Your task to perform on an android device: open a bookmark in the chrome app Image 0: 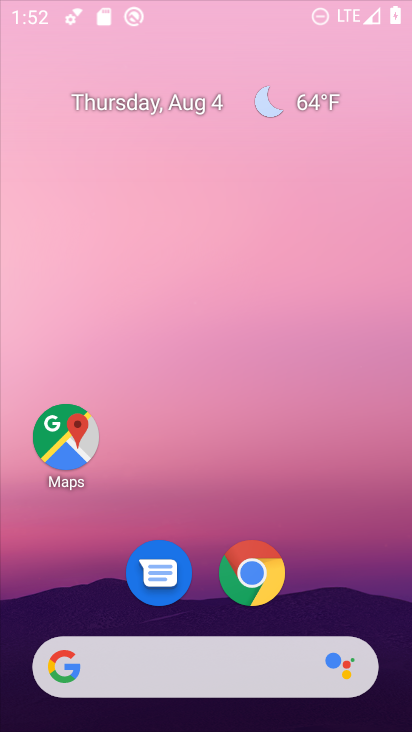
Step 0: drag from (350, 519) to (243, 94)
Your task to perform on an android device: open a bookmark in the chrome app Image 1: 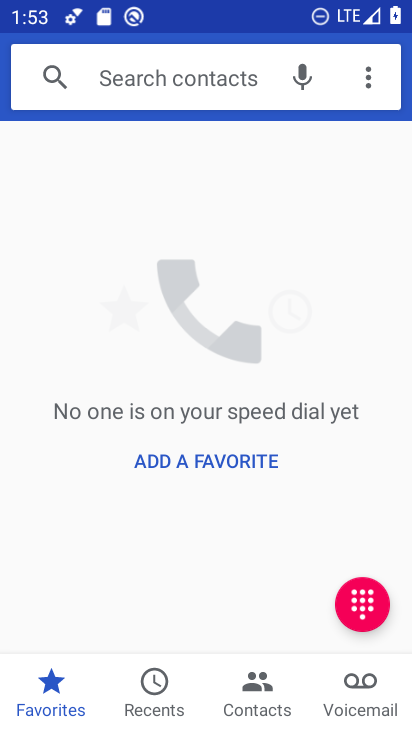
Step 1: press home button
Your task to perform on an android device: open a bookmark in the chrome app Image 2: 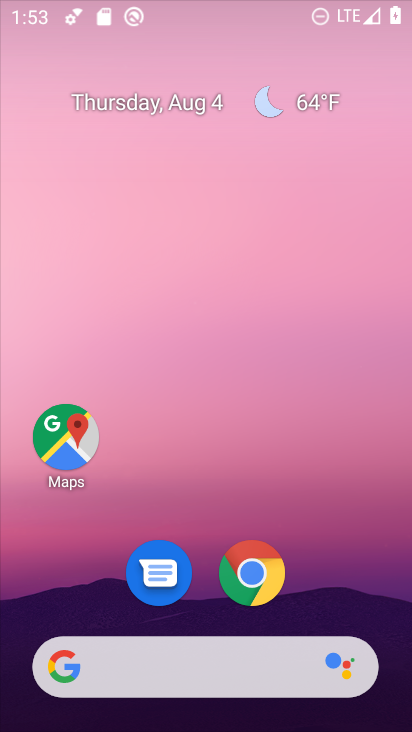
Step 2: drag from (323, 587) to (364, 68)
Your task to perform on an android device: open a bookmark in the chrome app Image 3: 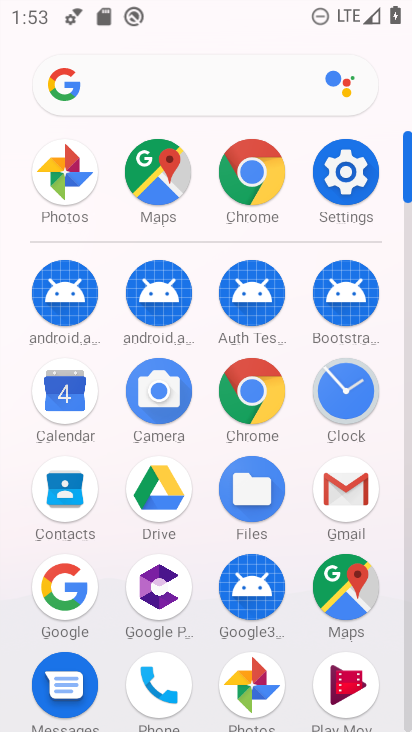
Step 3: click (250, 388)
Your task to perform on an android device: open a bookmark in the chrome app Image 4: 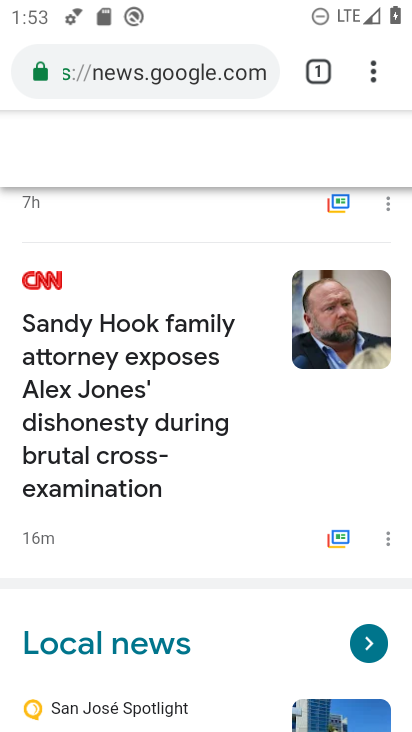
Step 4: click (370, 72)
Your task to perform on an android device: open a bookmark in the chrome app Image 5: 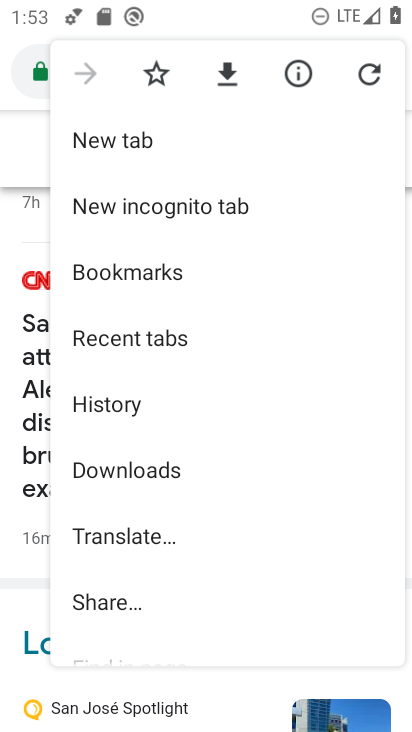
Step 5: click (127, 263)
Your task to perform on an android device: open a bookmark in the chrome app Image 6: 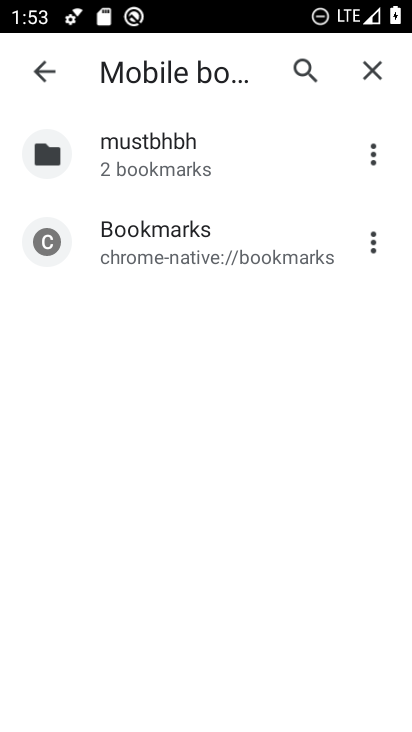
Step 6: click (162, 175)
Your task to perform on an android device: open a bookmark in the chrome app Image 7: 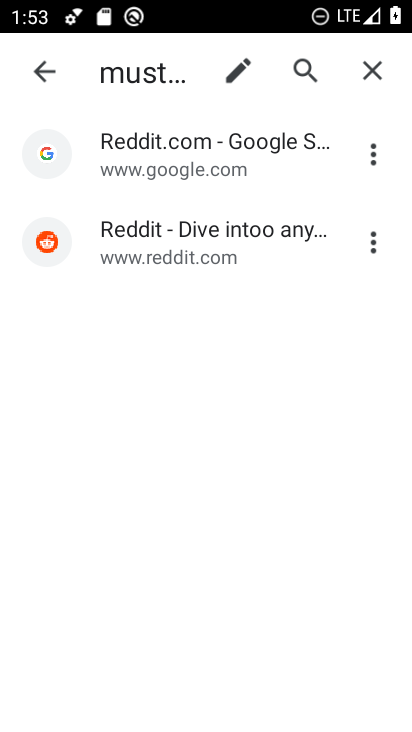
Step 7: click (161, 226)
Your task to perform on an android device: open a bookmark in the chrome app Image 8: 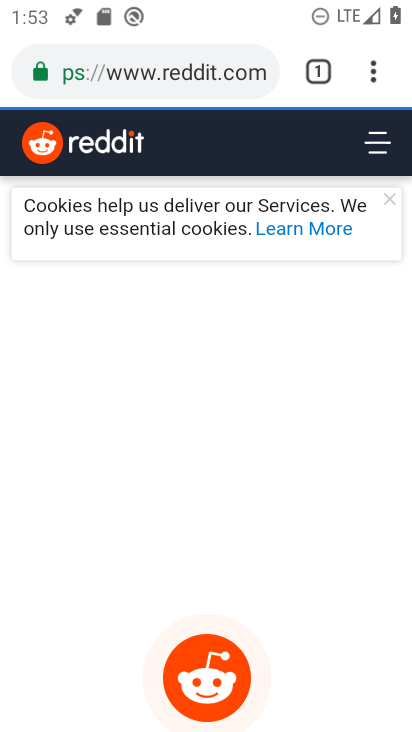
Step 8: task complete